Your task to perform on an android device: add a contact Image 0: 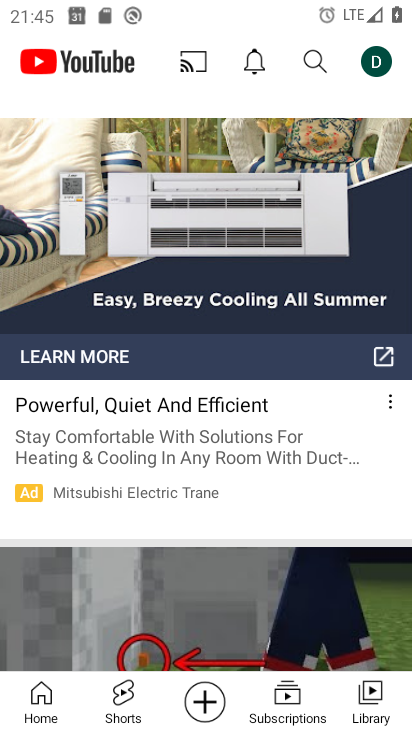
Step 0: press home button
Your task to perform on an android device: add a contact Image 1: 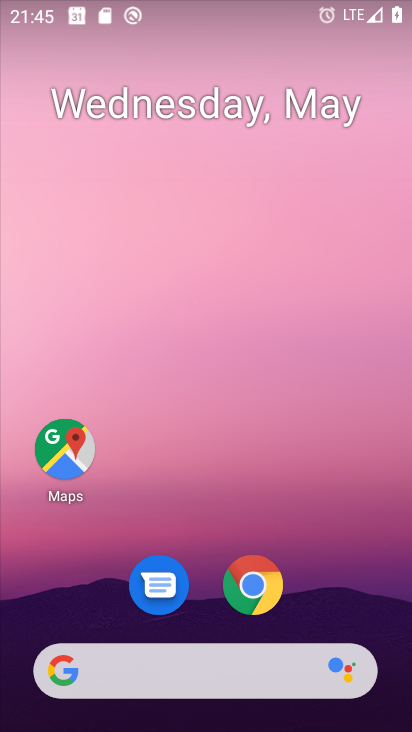
Step 1: drag from (252, 500) to (287, 52)
Your task to perform on an android device: add a contact Image 2: 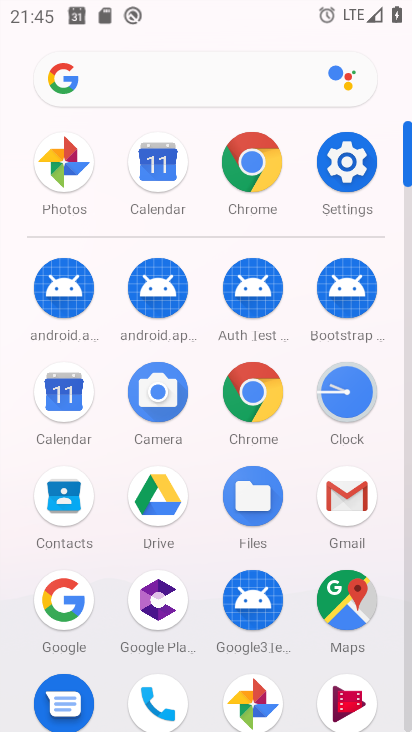
Step 2: click (64, 504)
Your task to perform on an android device: add a contact Image 3: 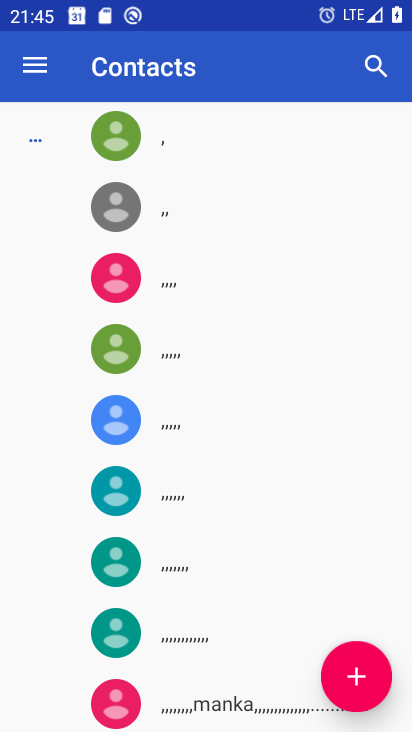
Step 3: click (350, 668)
Your task to perform on an android device: add a contact Image 4: 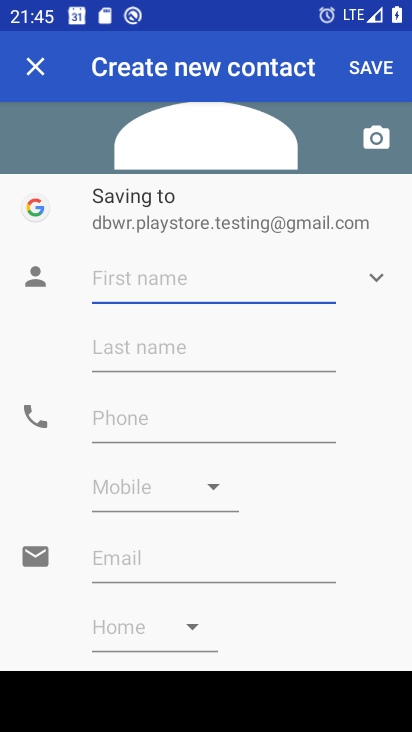
Step 4: type "Zudev"
Your task to perform on an android device: add a contact Image 5: 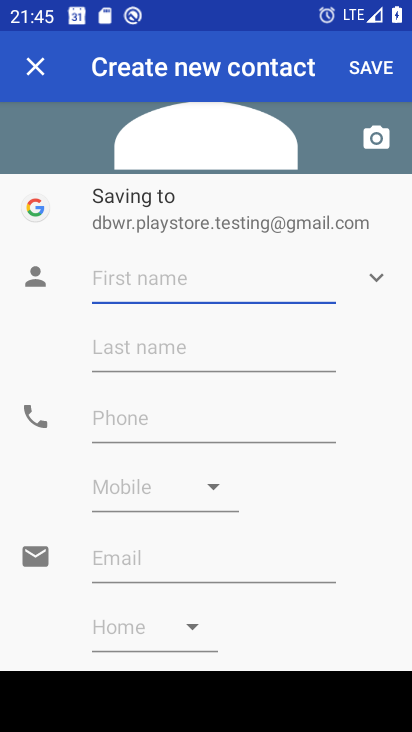
Step 5: click (265, 356)
Your task to perform on an android device: add a contact Image 6: 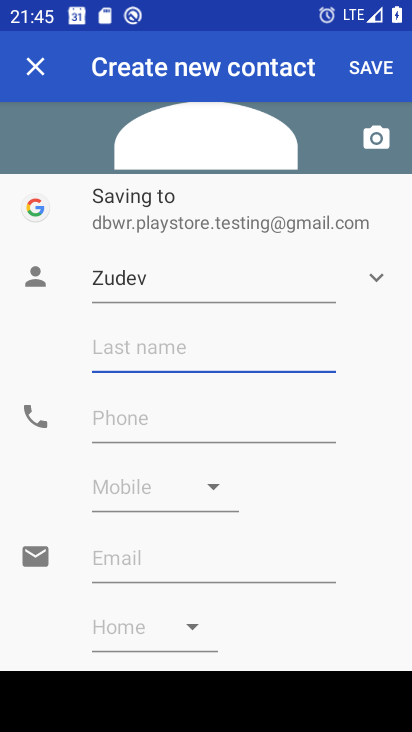
Step 6: type "Singh"
Your task to perform on an android device: add a contact Image 7: 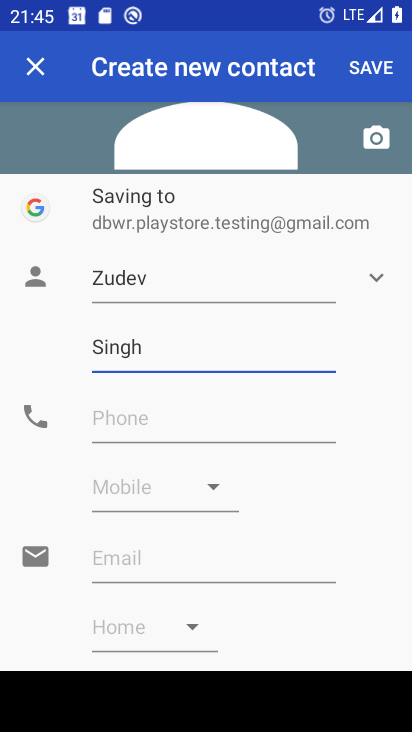
Step 7: click (244, 415)
Your task to perform on an android device: add a contact Image 8: 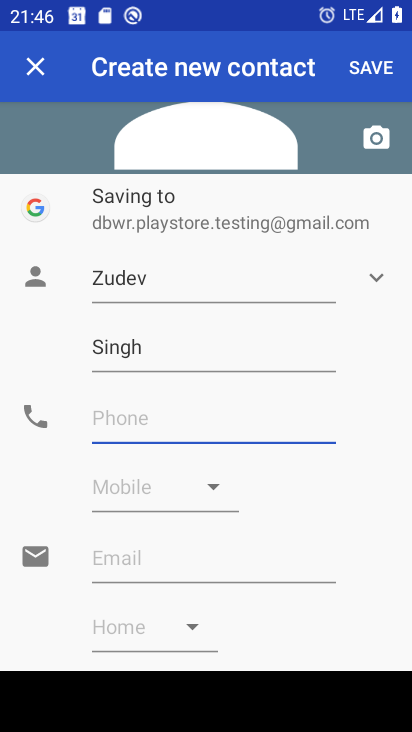
Step 8: type "0112323232323"
Your task to perform on an android device: add a contact Image 9: 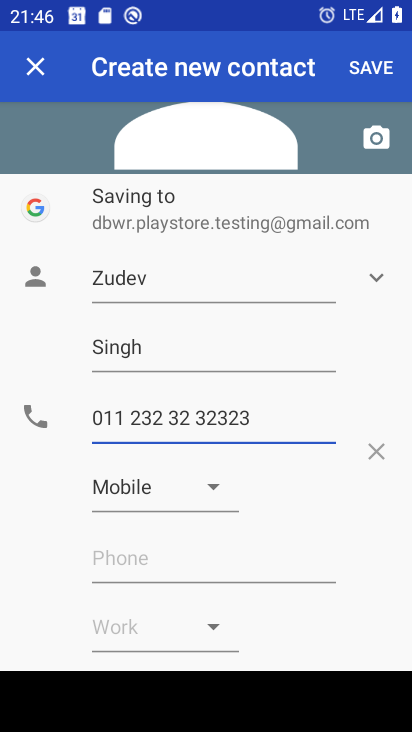
Step 9: click (375, 66)
Your task to perform on an android device: add a contact Image 10: 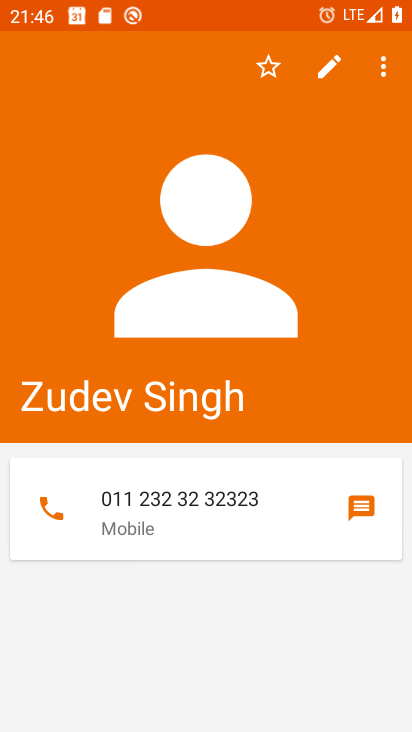
Step 10: task complete